Your task to perform on an android device: Open Chrome and go to the settings page Image 0: 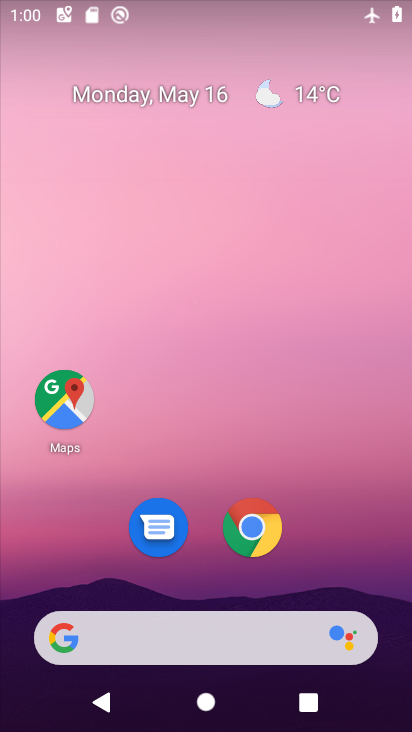
Step 0: click (258, 529)
Your task to perform on an android device: Open Chrome and go to the settings page Image 1: 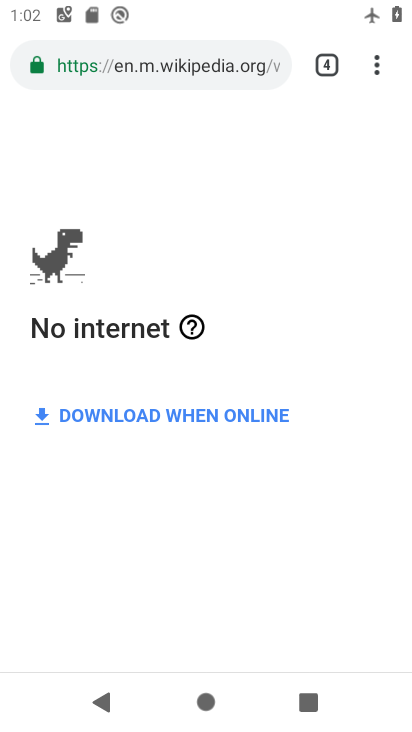
Step 1: click (378, 66)
Your task to perform on an android device: Open Chrome and go to the settings page Image 2: 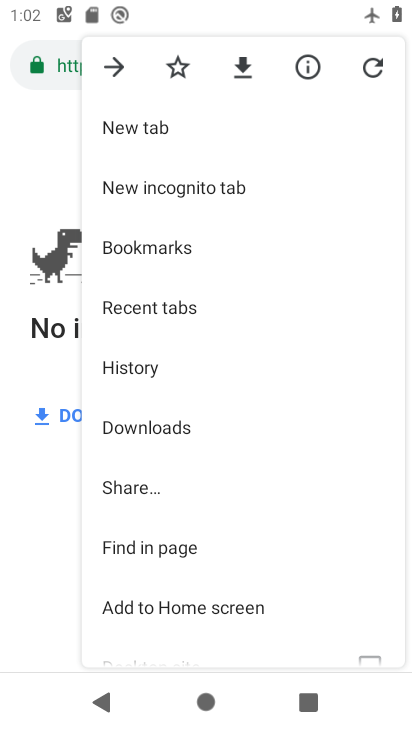
Step 2: drag from (162, 548) to (216, 243)
Your task to perform on an android device: Open Chrome and go to the settings page Image 3: 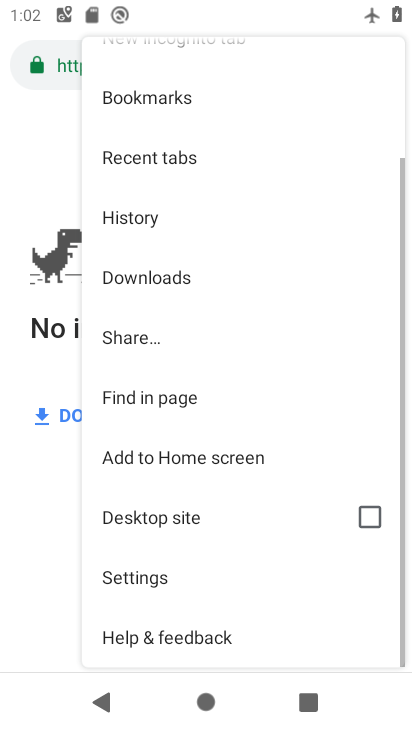
Step 3: click (138, 570)
Your task to perform on an android device: Open Chrome and go to the settings page Image 4: 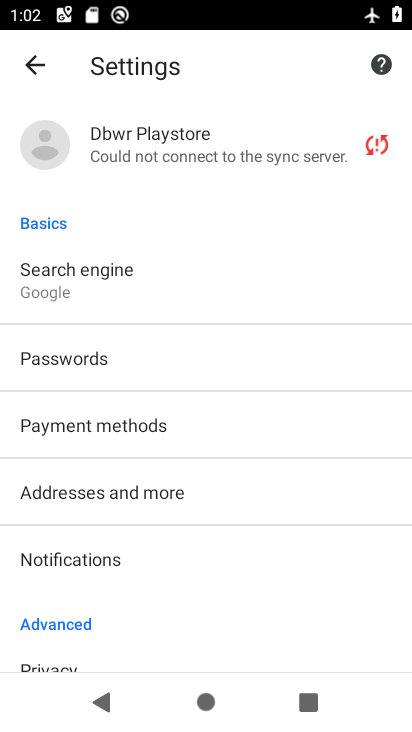
Step 4: task complete